Your task to perform on an android device: Open privacy settings Image 0: 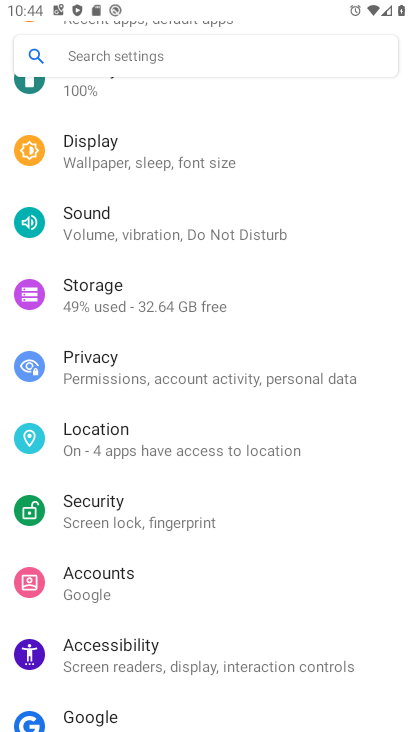
Step 0: press home button
Your task to perform on an android device: Open privacy settings Image 1: 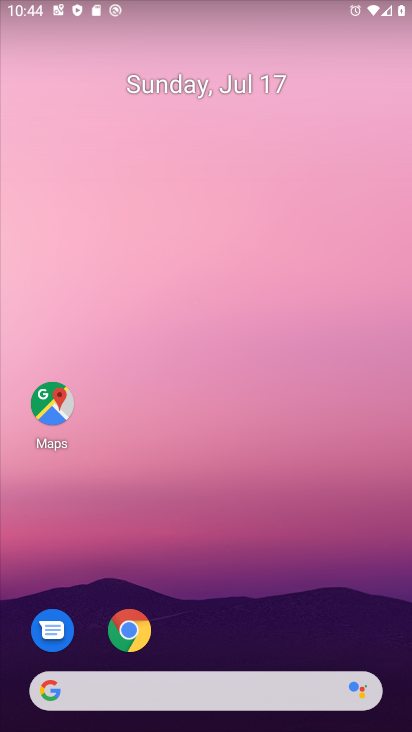
Step 1: drag from (311, 606) to (366, 75)
Your task to perform on an android device: Open privacy settings Image 2: 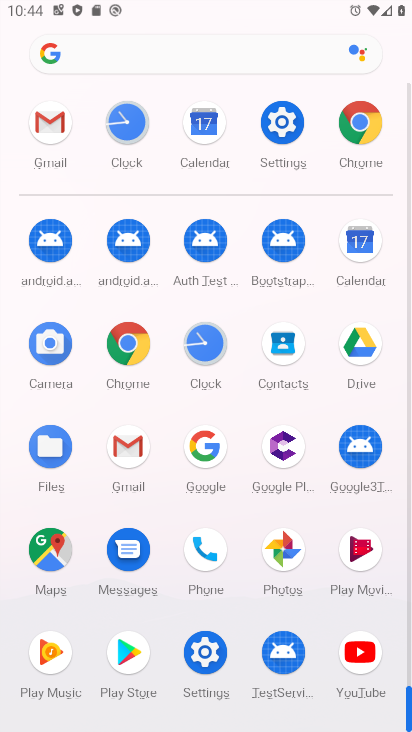
Step 2: click (283, 134)
Your task to perform on an android device: Open privacy settings Image 3: 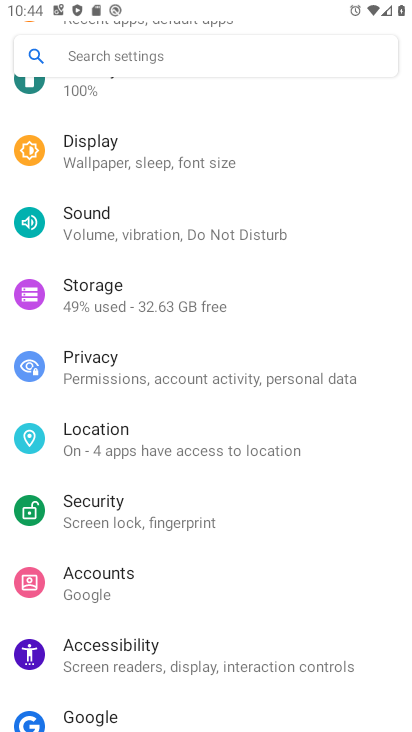
Step 3: drag from (341, 471) to (353, 382)
Your task to perform on an android device: Open privacy settings Image 4: 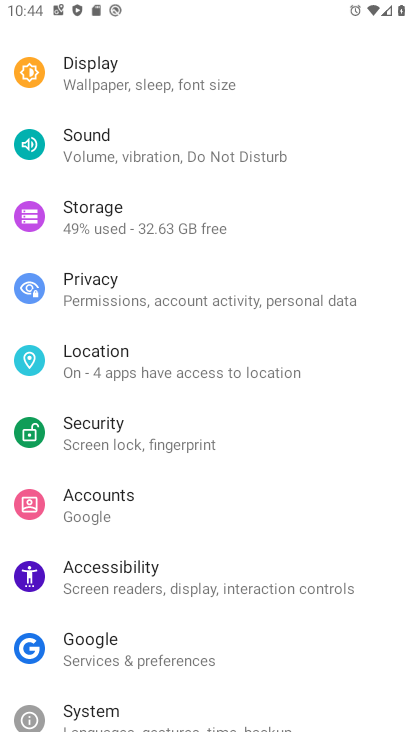
Step 4: drag from (359, 514) to (357, 390)
Your task to perform on an android device: Open privacy settings Image 5: 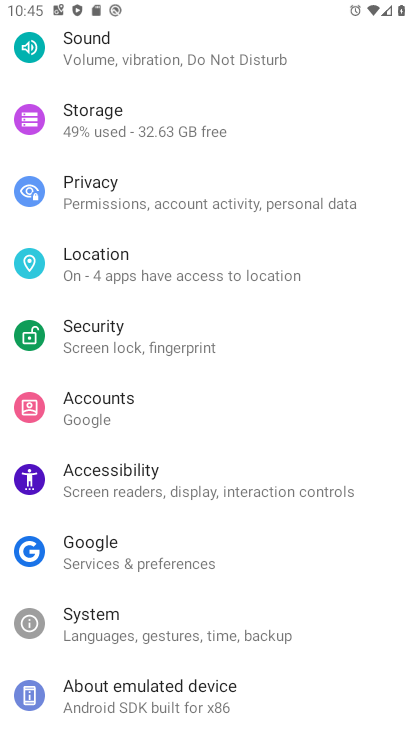
Step 5: drag from (351, 563) to (356, 392)
Your task to perform on an android device: Open privacy settings Image 6: 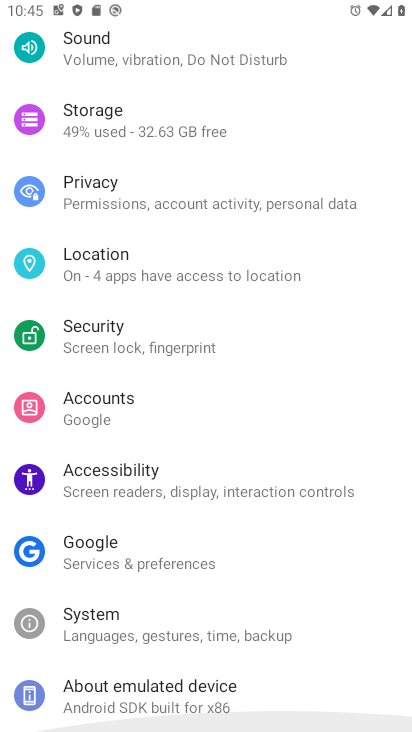
Step 6: drag from (356, 348) to (358, 476)
Your task to perform on an android device: Open privacy settings Image 7: 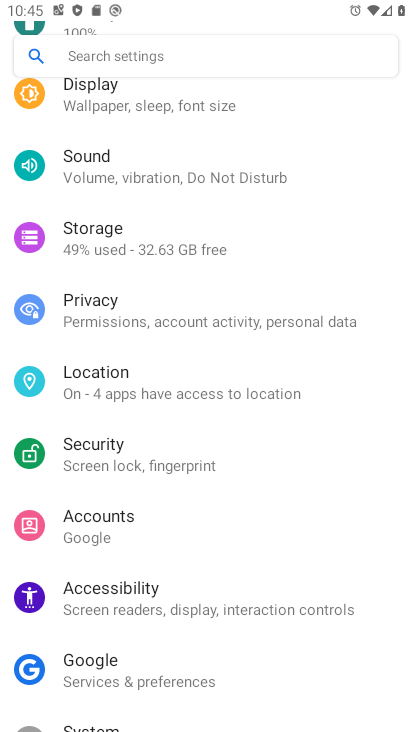
Step 7: drag from (356, 355) to (358, 461)
Your task to perform on an android device: Open privacy settings Image 8: 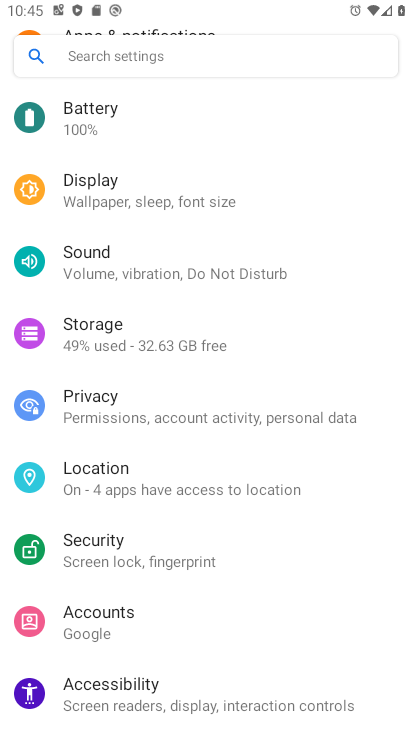
Step 8: drag from (368, 293) to (368, 427)
Your task to perform on an android device: Open privacy settings Image 9: 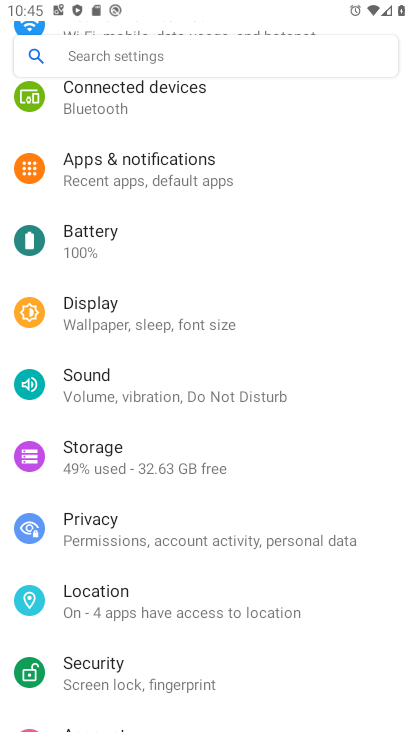
Step 9: drag from (357, 282) to (361, 470)
Your task to perform on an android device: Open privacy settings Image 10: 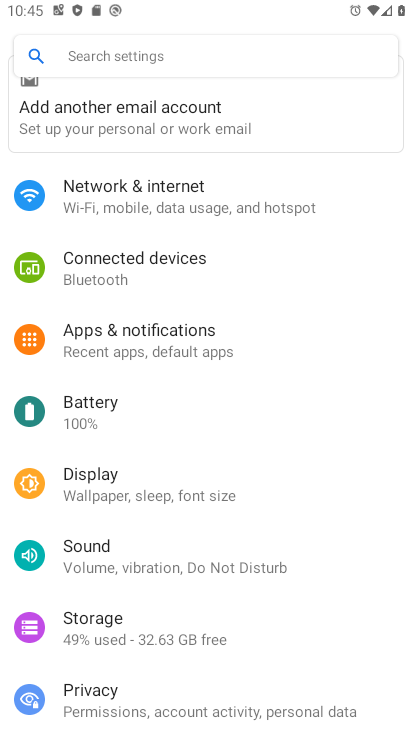
Step 10: click (210, 684)
Your task to perform on an android device: Open privacy settings Image 11: 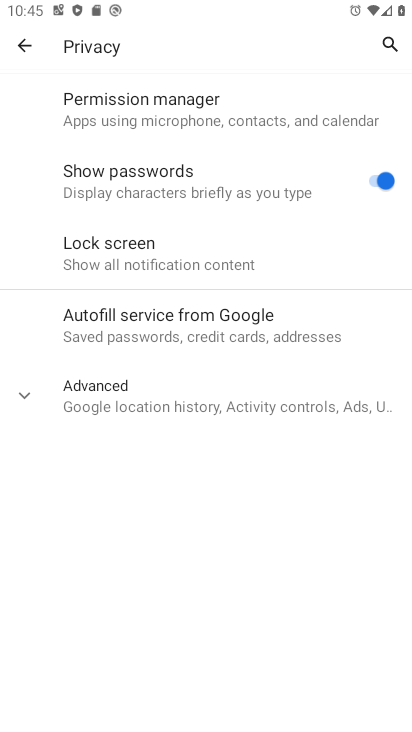
Step 11: task complete